Your task to perform on an android device: Open battery settings Image 0: 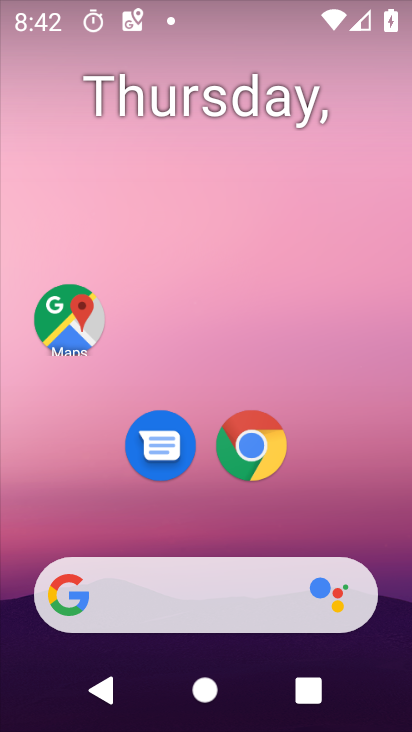
Step 0: drag from (109, 469) to (281, 176)
Your task to perform on an android device: Open battery settings Image 1: 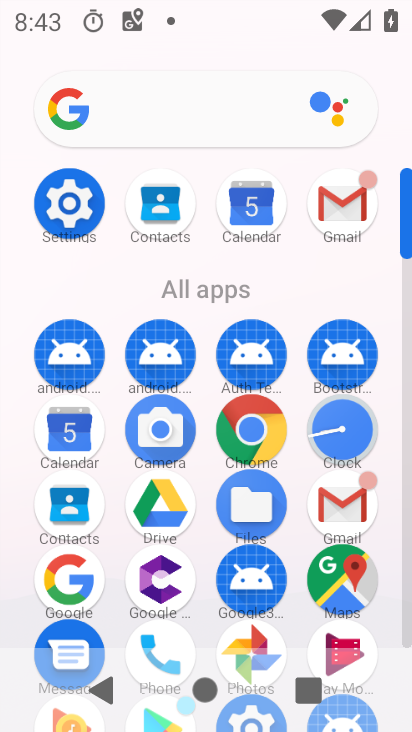
Step 1: click (66, 196)
Your task to perform on an android device: Open battery settings Image 2: 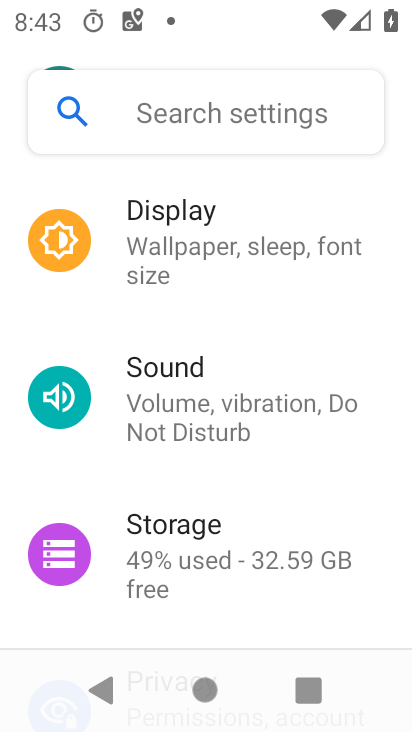
Step 2: drag from (271, 585) to (318, 256)
Your task to perform on an android device: Open battery settings Image 3: 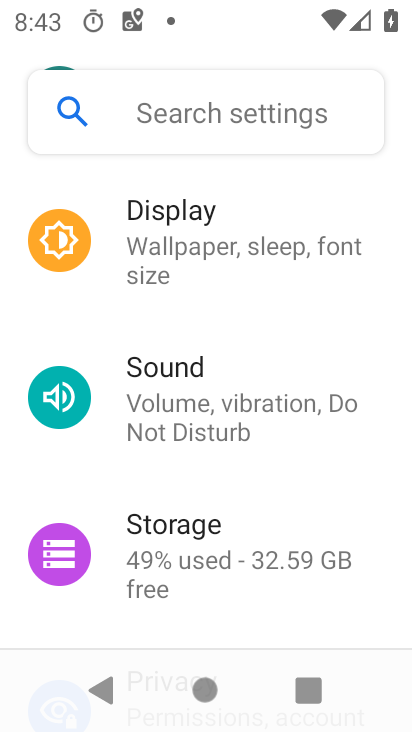
Step 3: drag from (230, 578) to (224, 274)
Your task to perform on an android device: Open battery settings Image 4: 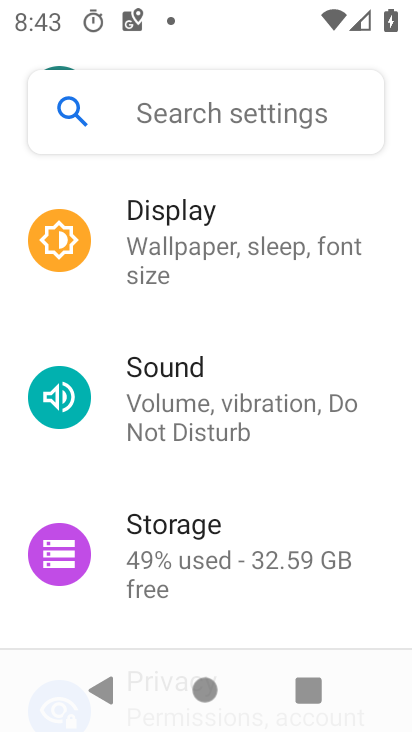
Step 4: drag from (167, 468) to (252, 206)
Your task to perform on an android device: Open battery settings Image 5: 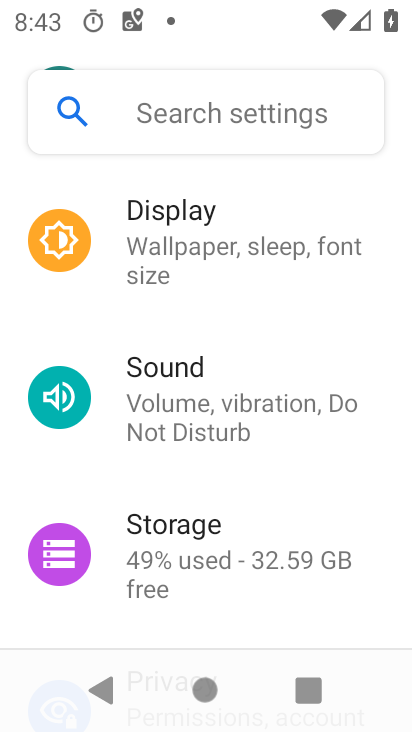
Step 5: drag from (131, 608) to (340, 234)
Your task to perform on an android device: Open battery settings Image 6: 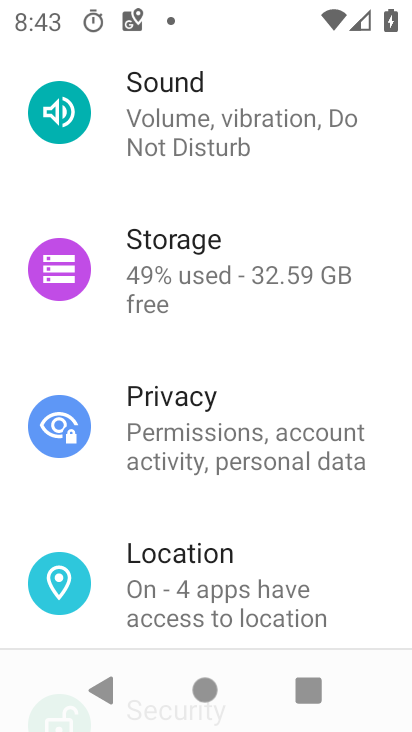
Step 6: drag from (205, 125) to (183, 528)
Your task to perform on an android device: Open battery settings Image 7: 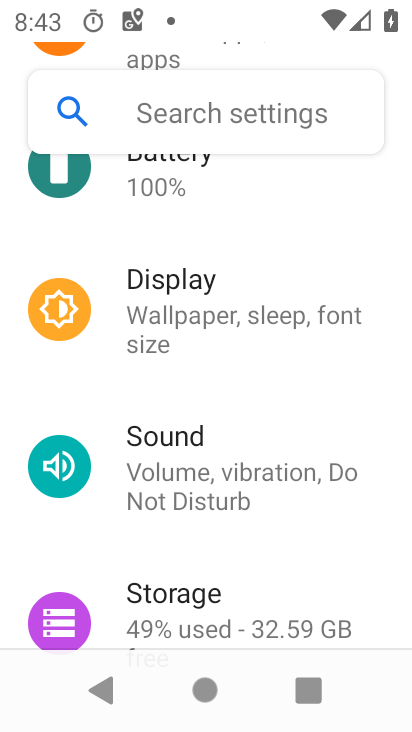
Step 7: drag from (255, 215) to (267, 460)
Your task to perform on an android device: Open battery settings Image 8: 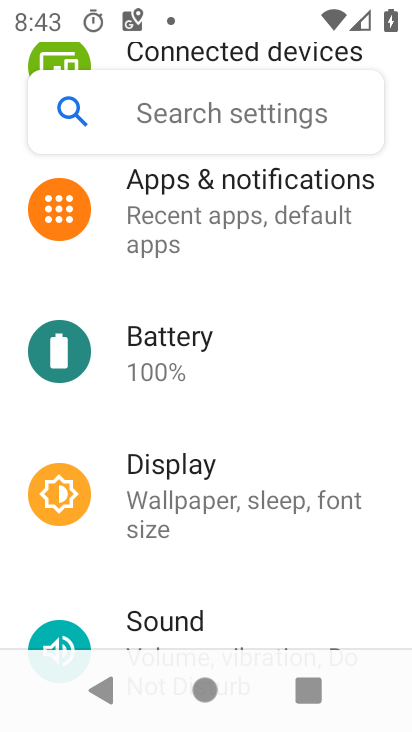
Step 8: click (179, 359)
Your task to perform on an android device: Open battery settings Image 9: 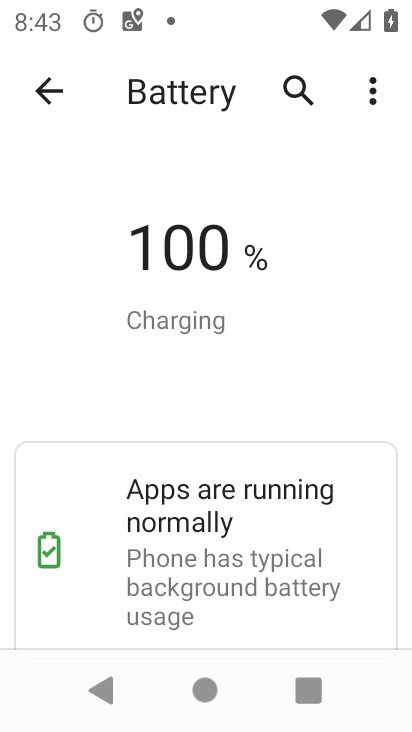
Step 9: task complete